Your task to perform on an android device: turn off sleep mode Image 0: 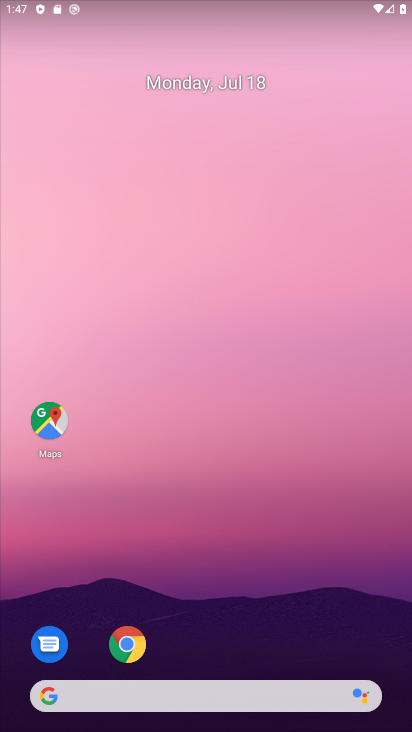
Step 0: drag from (296, 580) to (232, 38)
Your task to perform on an android device: turn off sleep mode Image 1: 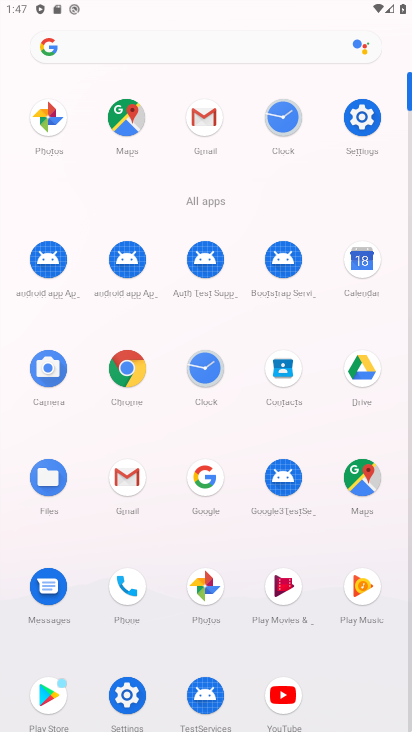
Step 1: click (374, 117)
Your task to perform on an android device: turn off sleep mode Image 2: 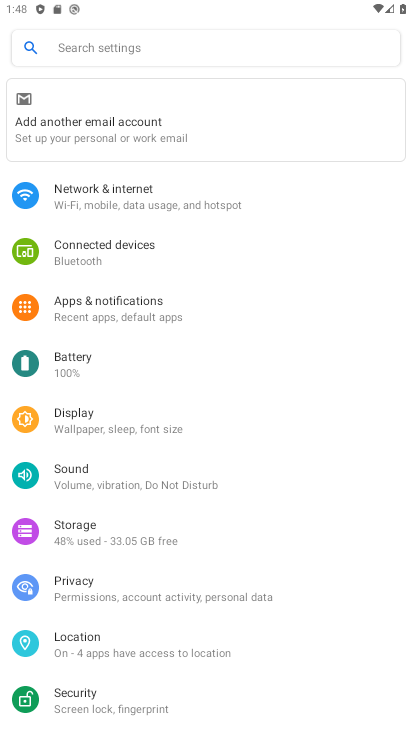
Step 2: click (81, 420)
Your task to perform on an android device: turn off sleep mode Image 3: 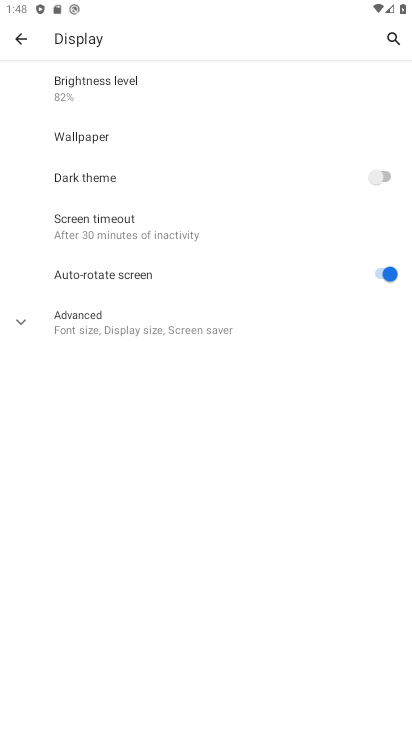
Step 3: click (98, 232)
Your task to perform on an android device: turn off sleep mode Image 4: 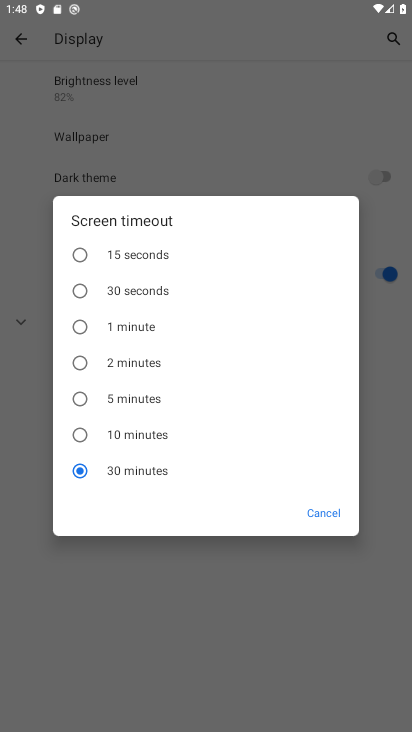
Step 4: task complete